Your task to perform on an android device: allow notifications from all sites in the chrome app Image 0: 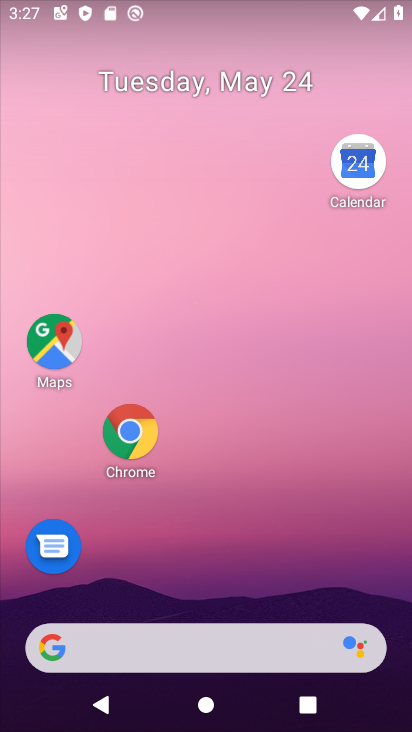
Step 0: drag from (281, 42) to (292, 94)
Your task to perform on an android device: allow notifications from all sites in the chrome app Image 1: 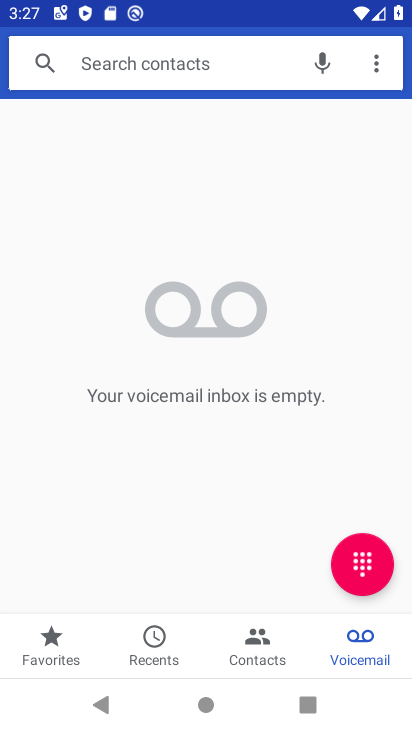
Step 1: press home button
Your task to perform on an android device: allow notifications from all sites in the chrome app Image 2: 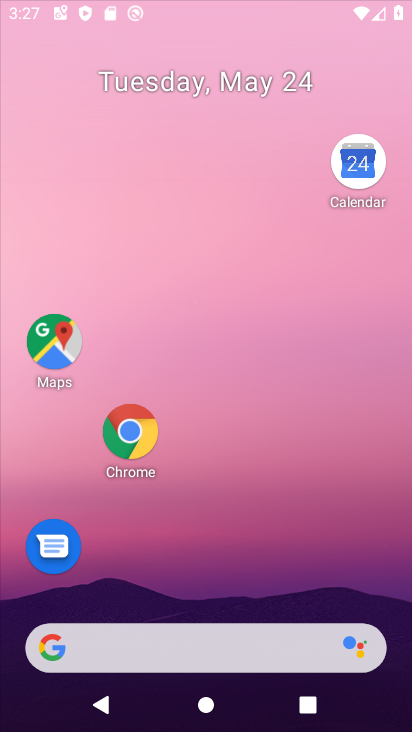
Step 2: drag from (163, 593) to (242, 81)
Your task to perform on an android device: allow notifications from all sites in the chrome app Image 3: 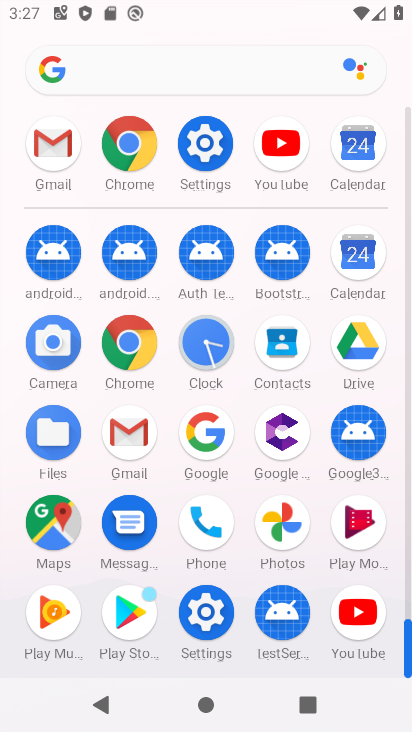
Step 3: click (120, 329)
Your task to perform on an android device: allow notifications from all sites in the chrome app Image 4: 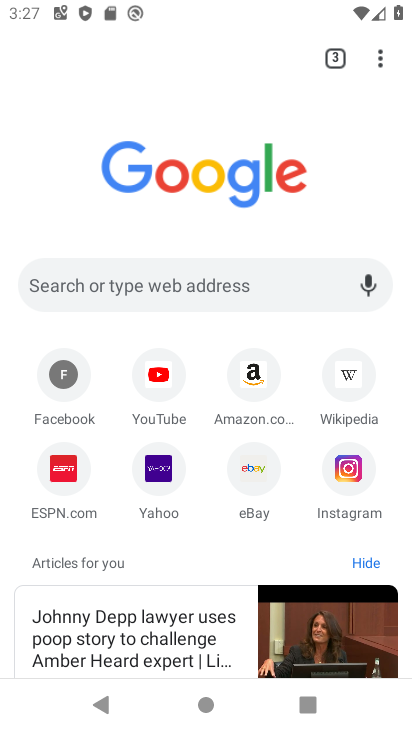
Step 4: click (385, 61)
Your task to perform on an android device: allow notifications from all sites in the chrome app Image 5: 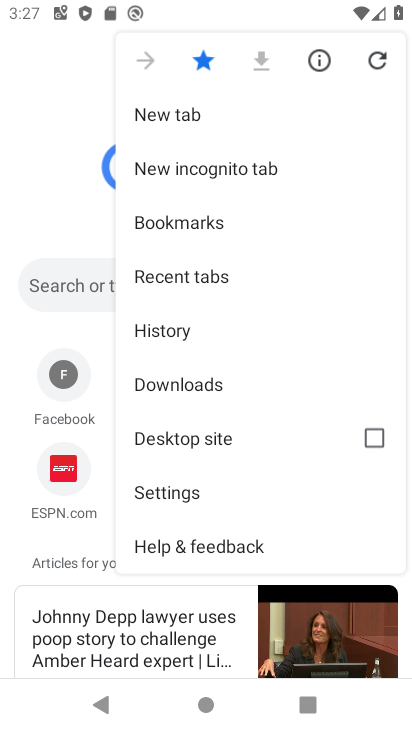
Step 5: click (201, 490)
Your task to perform on an android device: allow notifications from all sites in the chrome app Image 6: 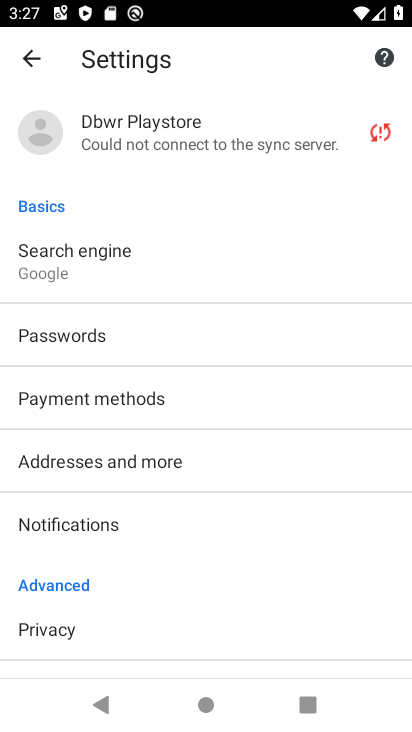
Step 6: drag from (143, 499) to (265, 99)
Your task to perform on an android device: allow notifications from all sites in the chrome app Image 7: 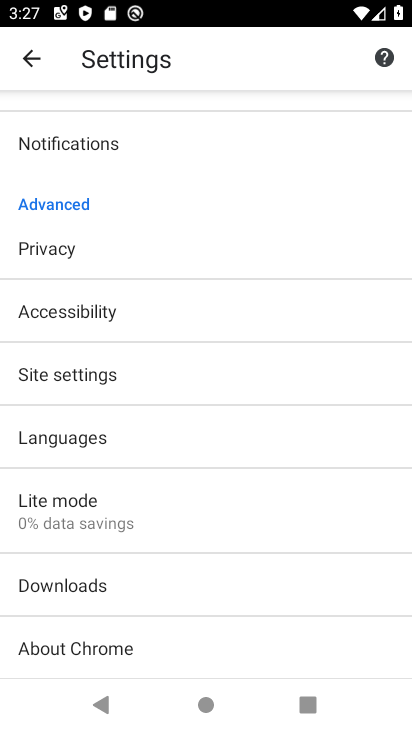
Step 7: drag from (155, 376) to (226, 634)
Your task to perform on an android device: allow notifications from all sites in the chrome app Image 8: 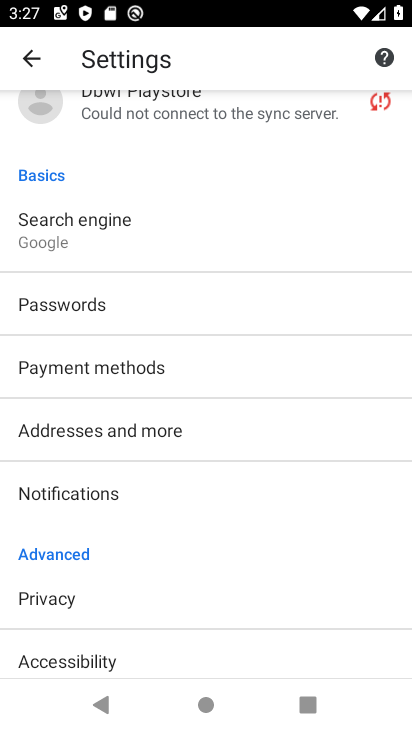
Step 8: drag from (140, 616) to (219, 200)
Your task to perform on an android device: allow notifications from all sites in the chrome app Image 9: 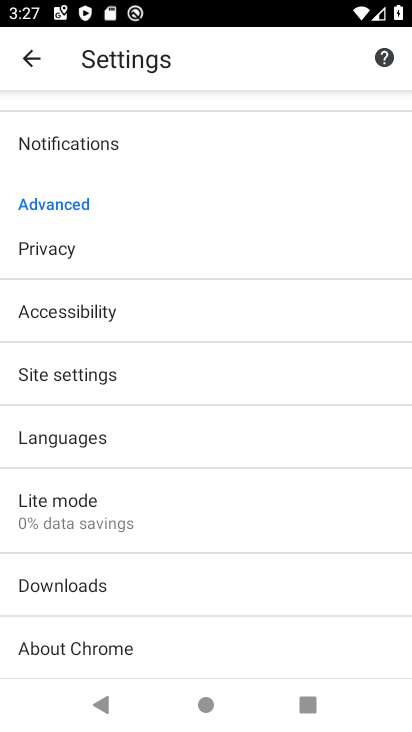
Step 9: click (95, 394)
Your task to perform on an android device: allow notifications from all sites in the chrome app Image 10: 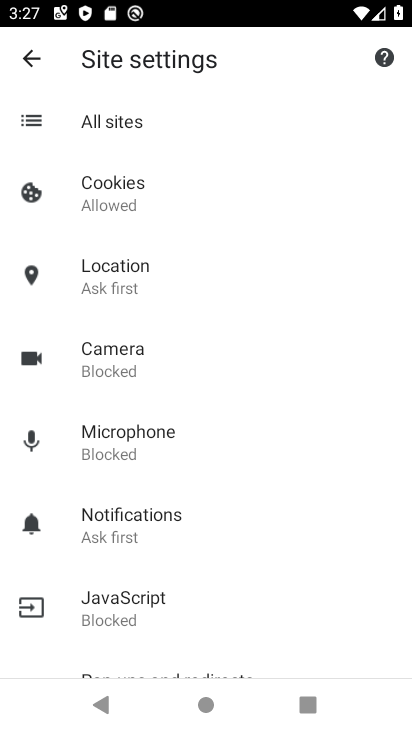
Step 10: click (92, 531)
Your task to perform on an android device: allow notifications from all sites in the chrome app Image 11: 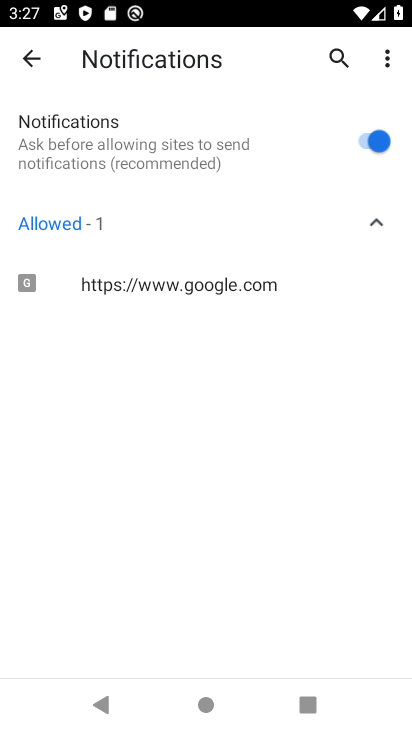
Step 11: task complete